Your task to perform on an android device: Check the news Image 0: 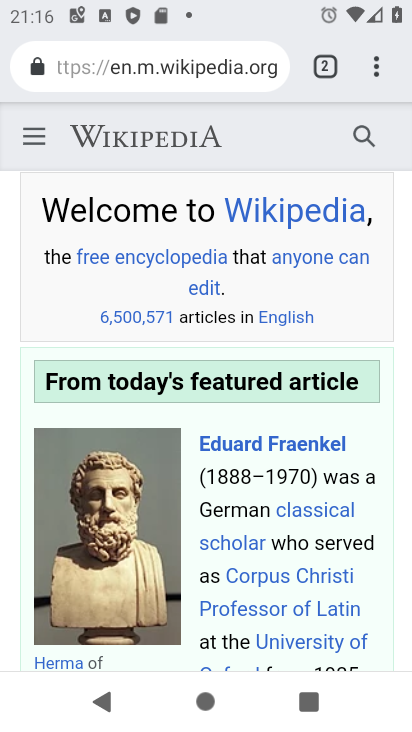
Step 0: press home button
Your task to perform on an android device: Check the news Image 1: 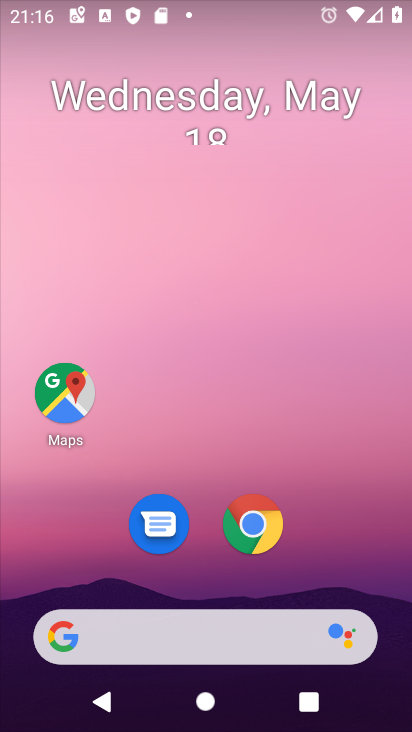
Step 1: click (144, 638)
Your task to perform on an android device: Check the news Image 2: 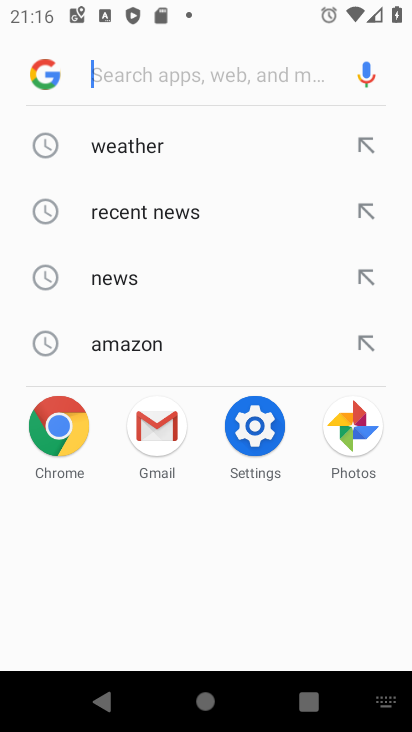
Step 2: click (119, 273)
Your task to perform on an android device: Check the news Image 3: 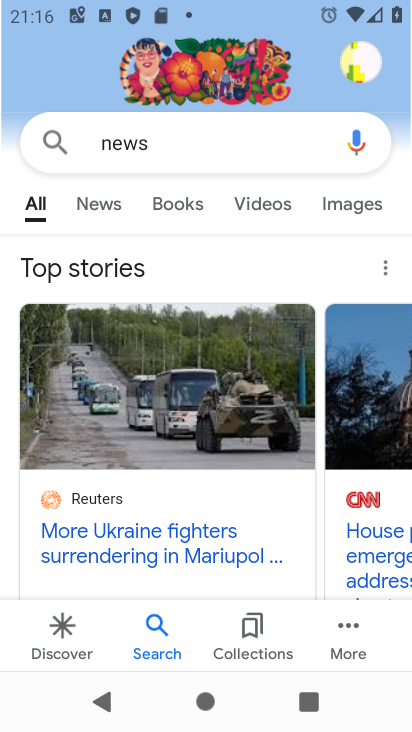
Step 3: click (98, 198)
Your task to perform on an android device: Check the news Image 4: 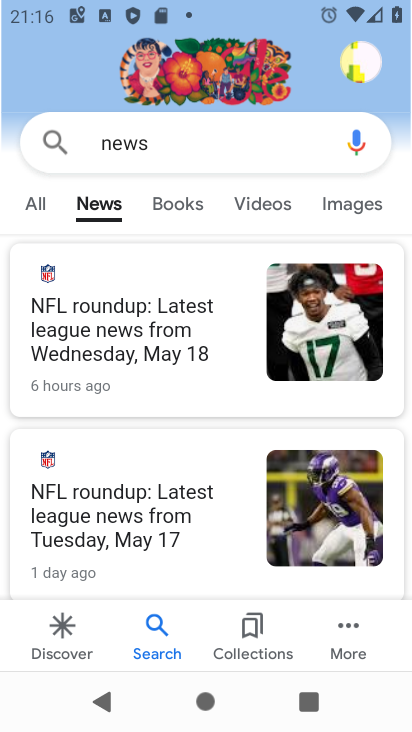
Step 4: task complete